Your task to perform on an android device: set the timer Image 0: 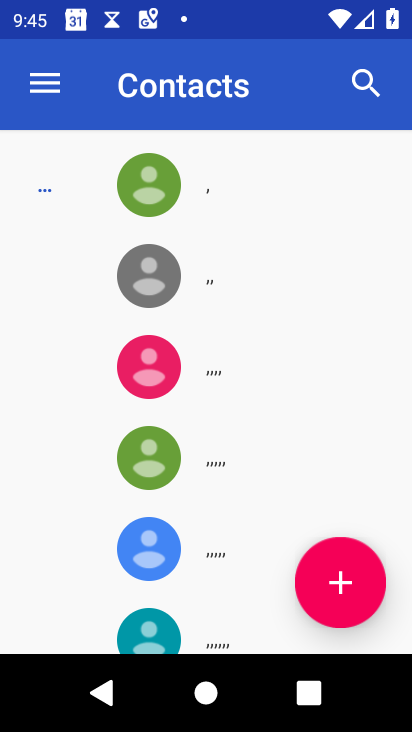
Step 0: press home button
Your task to perform on an android device: set the timer Image 1: 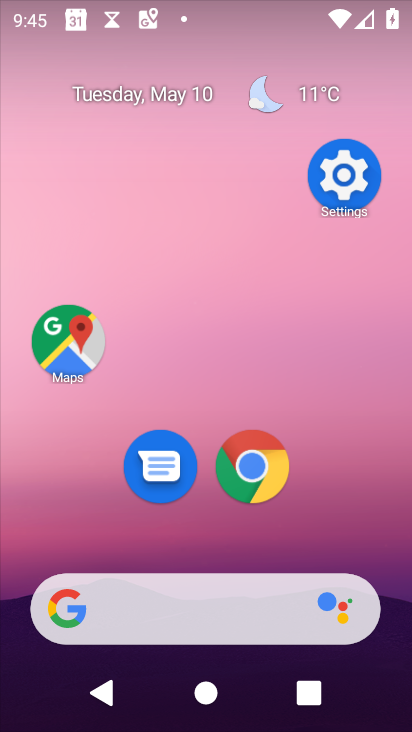
Step 1: drag from (308, 574) to (273, 151)
Your task to perform on an android device: set the timer Image 2: 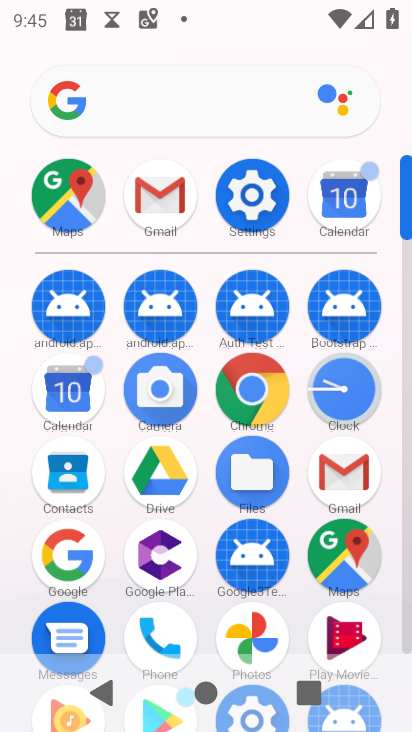
Step 2: click (349, 399)
Your task to perform on an android device: set the timer Image 3: 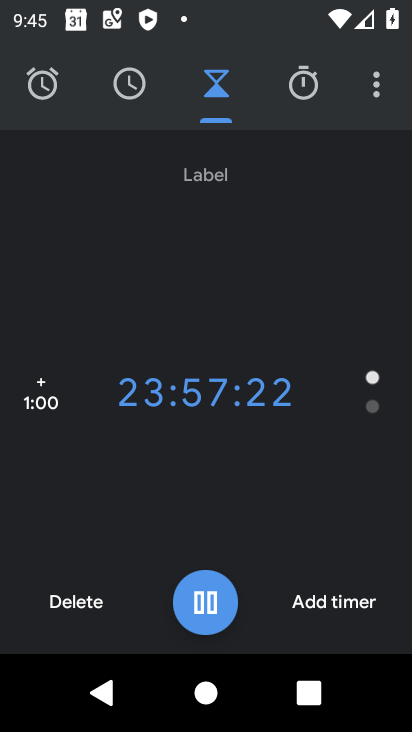
Step 3: click (327, 601)
Your task to perform on an android device: set the timer Image 4: 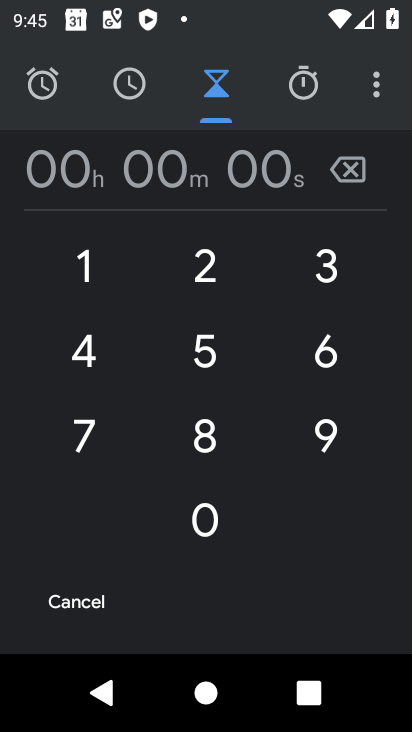
Step 4: click (115, 431)
Your task to perform on an android device: set the timer Image 5: 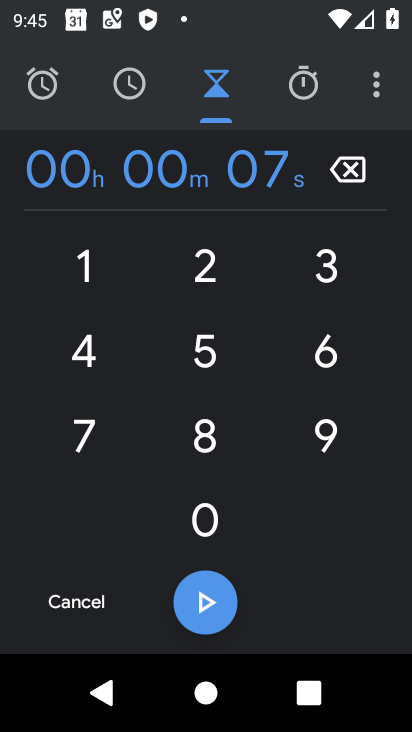
Step 5: click (253, 333)
Your task to perform on an android device: set the timer Image 6: 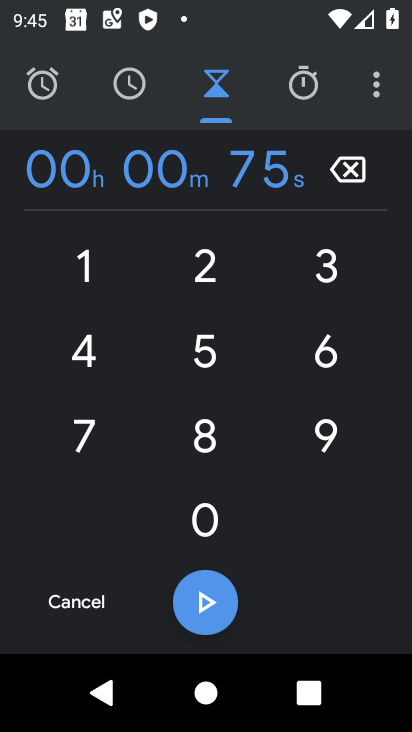
Step 6: click (327, 263)
Your task to perform on an android device: set the timer Image 7: 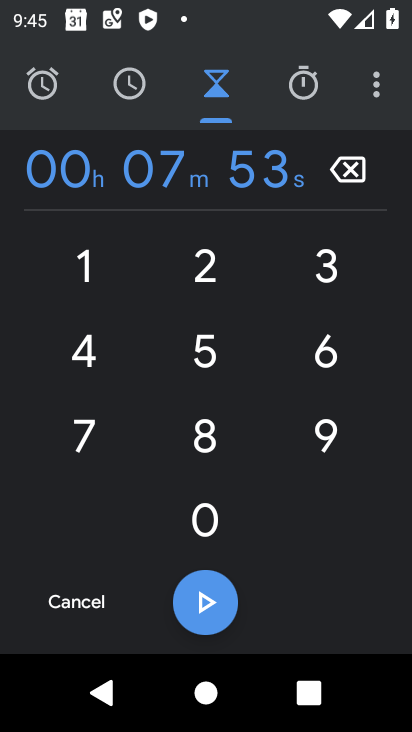
Step 7: click (81, 261)
Your task to perform on an android device: set the timer Image 8: 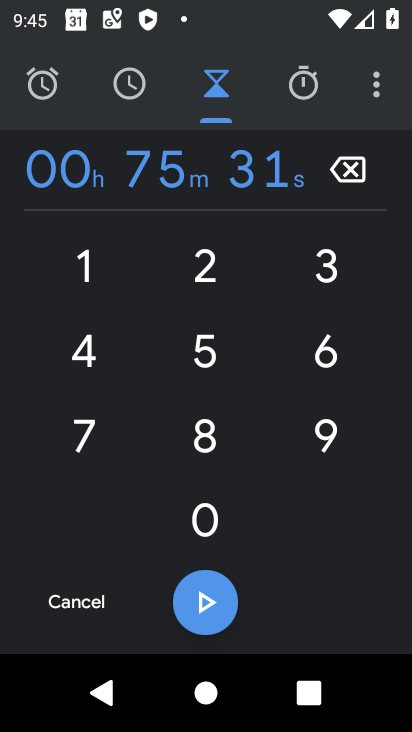
Step 8: click (168, 327)
Your task to perform on an android device: set the timer Image 9: 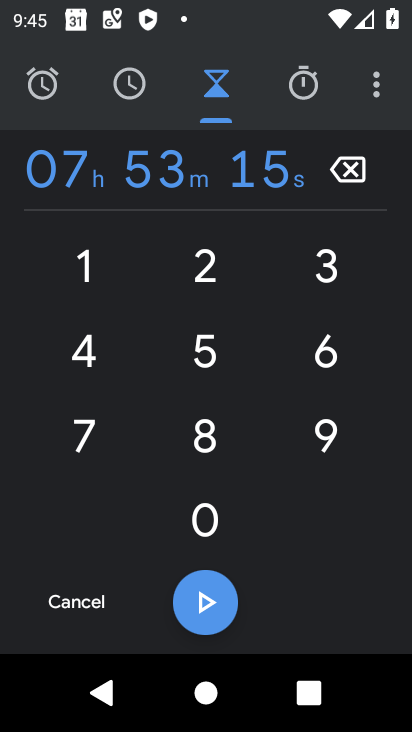
Step 9: click (284, 437)
Your task to perform on an android device: set the timer Image 10: 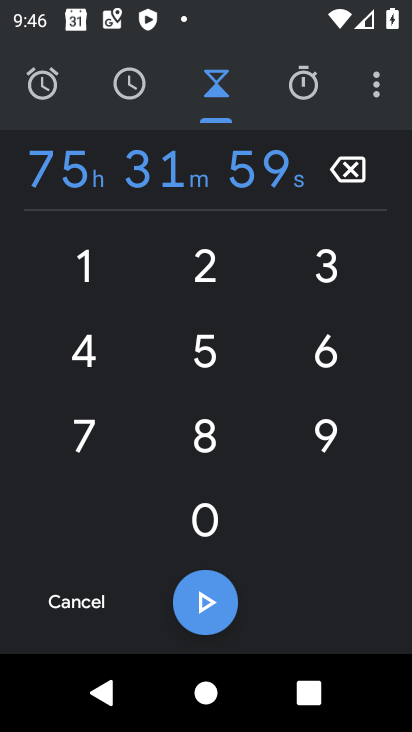
Step 10: click (189, 593)
Your task to perform on an android device: set the timer Image 11: 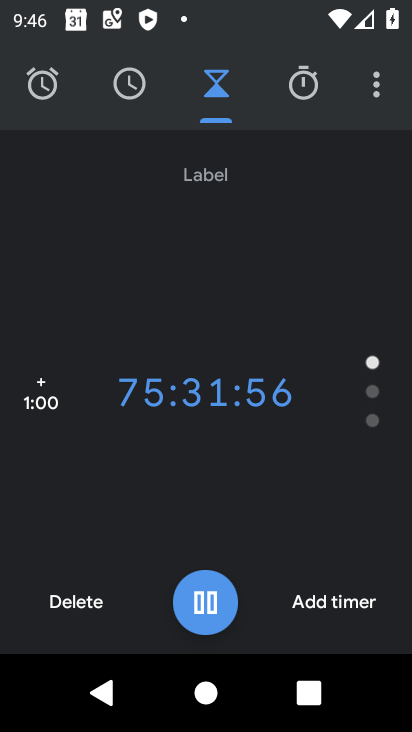
Step 11: task complete